Your task to perform on an android device: What's on my calendar today? Image 0: 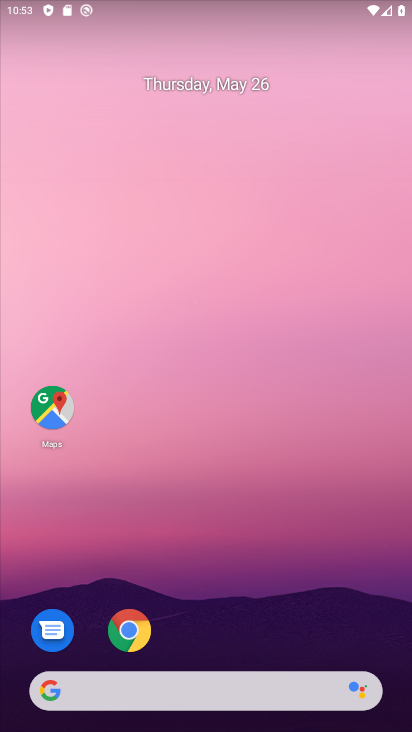
Step 0: drag from (254, 630) to (174, 95)
Your task to perform on an android device: What's on my calendar today? Image 1: 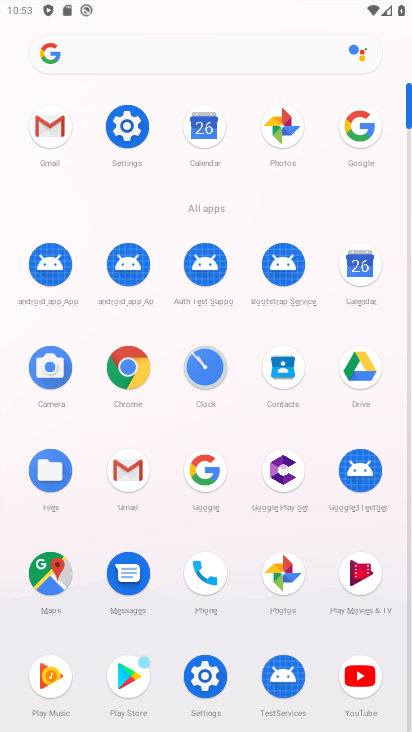
Step 1: click (361, 266)
Your task to perform on an android device: What's on my calendar today? Image 2: 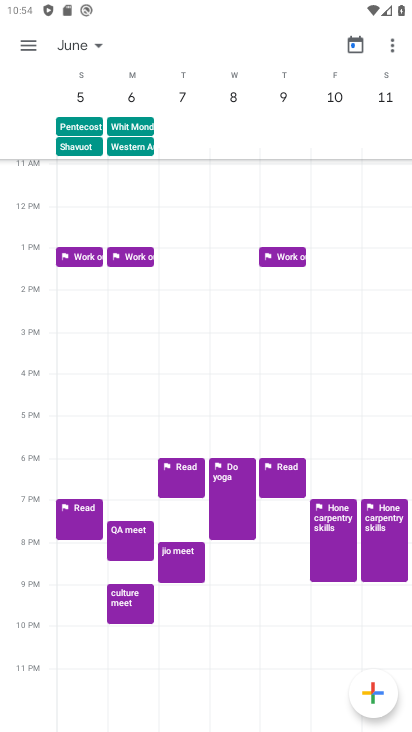
Step 2: click (357, 45)
Your task to perform on an android device: What's on my calendar today? Image 3: 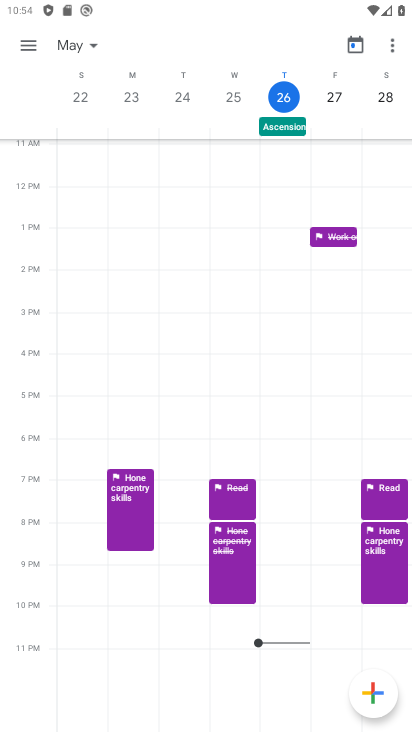
Step 3: click (92, 38)
Your task to perform on an android device: What's on my calendar today? Image 4: 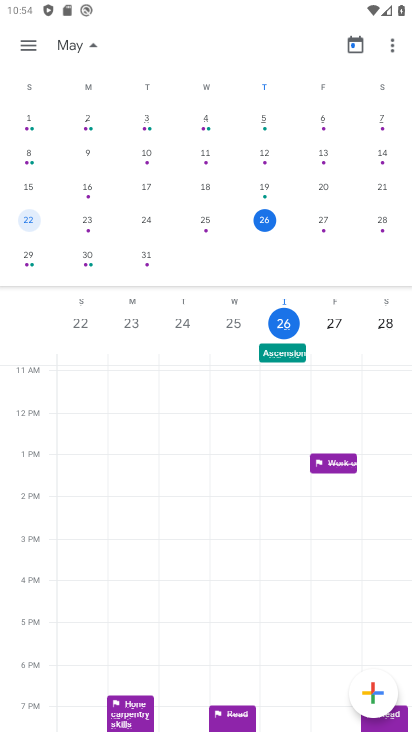
Step 4: click (258, 219)
Your task to perform on an android device: What's on my calendar today? Image 5: 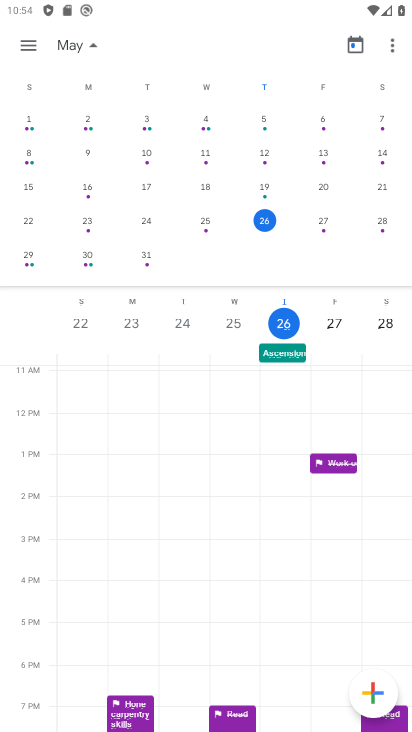
Step 5: click (34, 50)
Your task to perform on an android device: What's on my calendar today? Image 6: 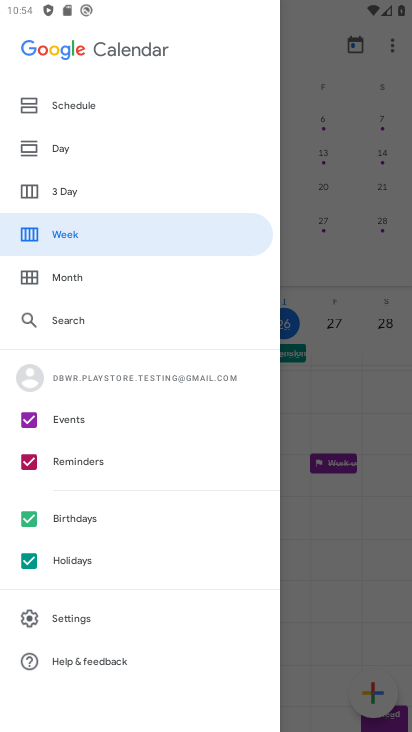
Step 6: click (54, 104)
Your task to perform on an android device: What's on my calendar today? Image 7: 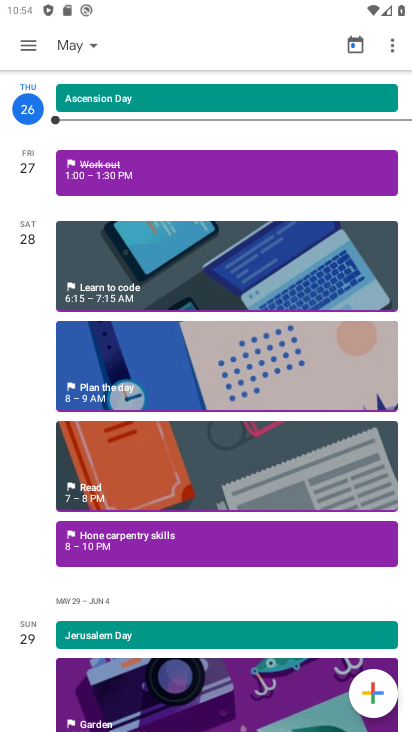
Step 7: task complete